Your task to perform on an android device: Open Google Maps Image 0: 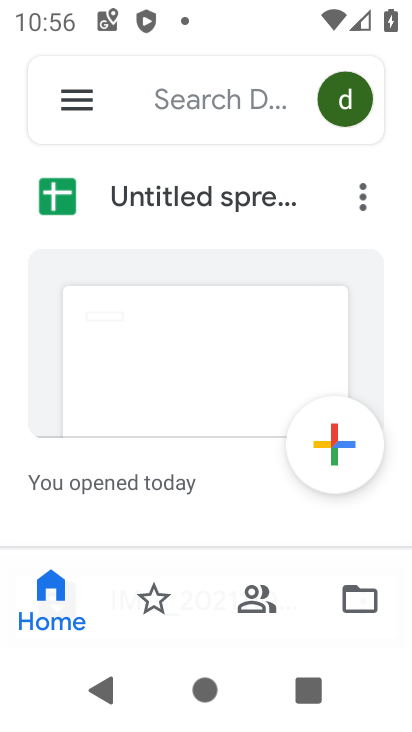
Step 0: press back button
Your task to perform on an android device: Open Google Maps Image 1: 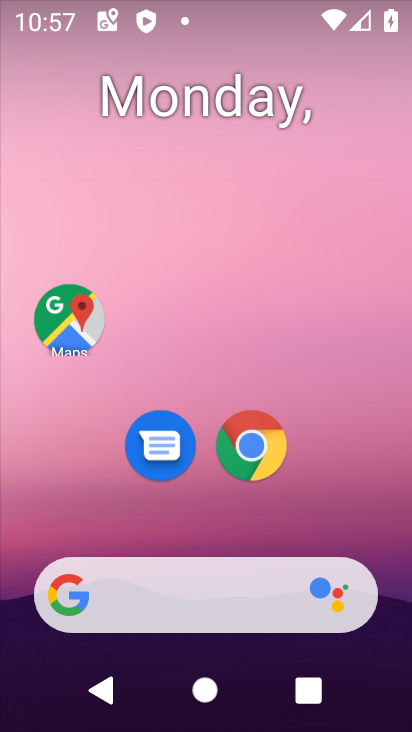
Step 1: click (84, 309)
Your task to perform on an android device: Open Google Maps Image 2: 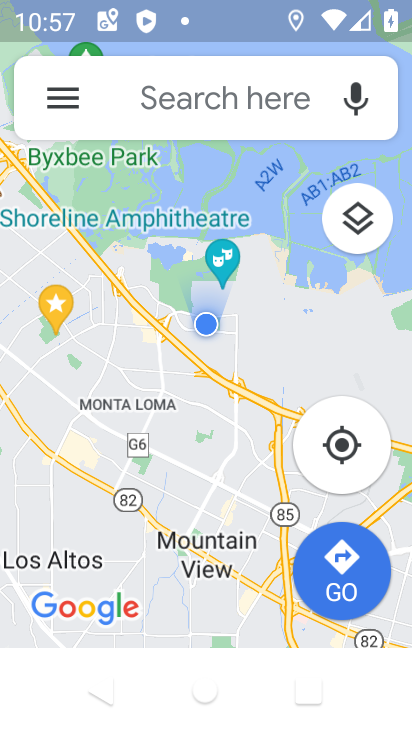
Step 2: task complete